Your task to perform on an android device: Open ESPN.com Image 0: 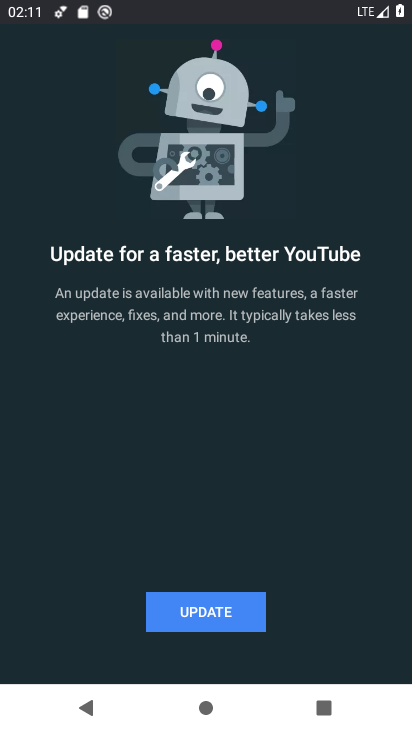
Step 0: press home button
Your task to perform on an android device: Open ESPN.com Image 1: 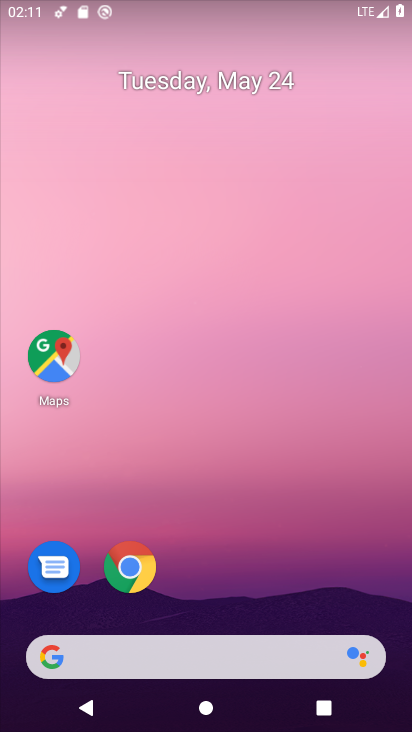
Step 1: click (115, 580)
Your task to perform on an android device: Open ESPN.com Image 2: 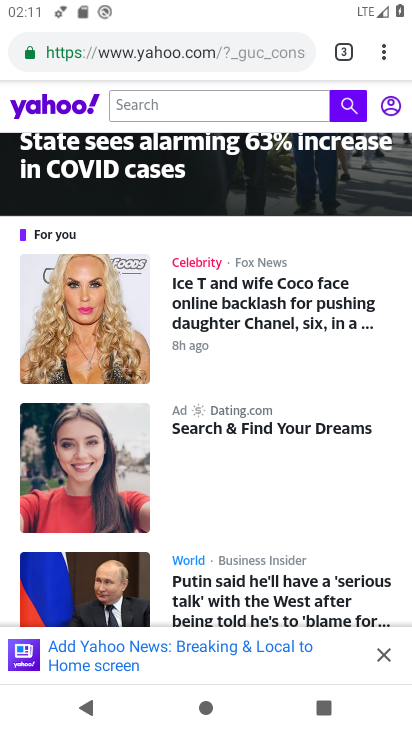
Step 2: click (216, 48)
Your task to perform on an android device: Open ESPN.com Image 3: 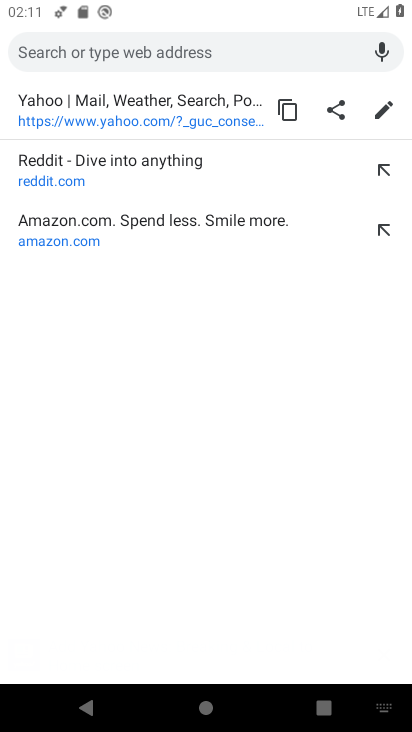
Step 3: type "ESPN.com"
Your task to perform on an android device: Open ESPN.com Image 4: 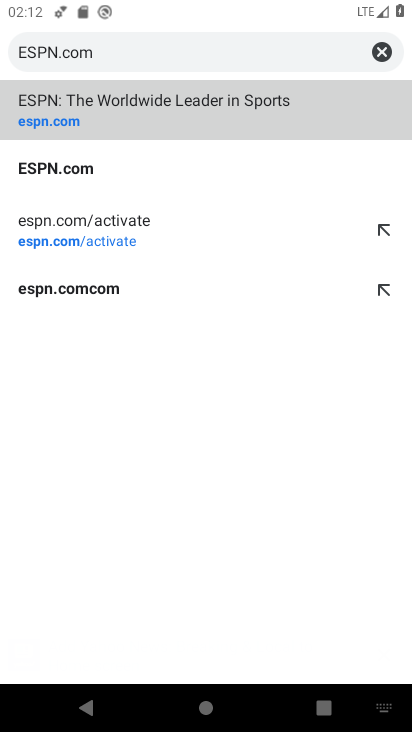
Step 4: click (132, 105)
Your task to perform on an android device: Open ESPN.com Image 5: 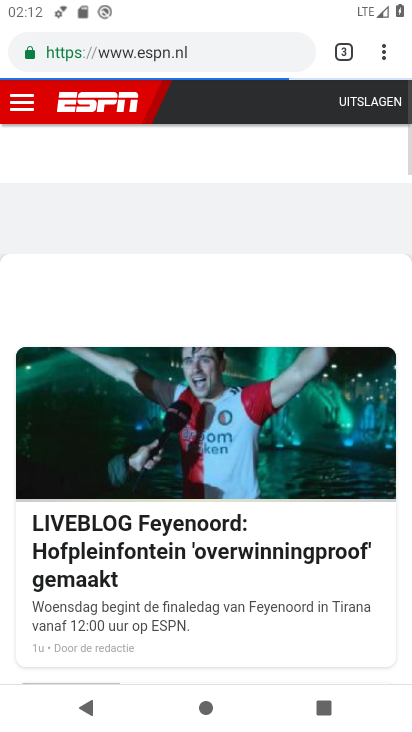
Step 5: task complete